Your task to perform on an android device: Go to location settings Image 0: 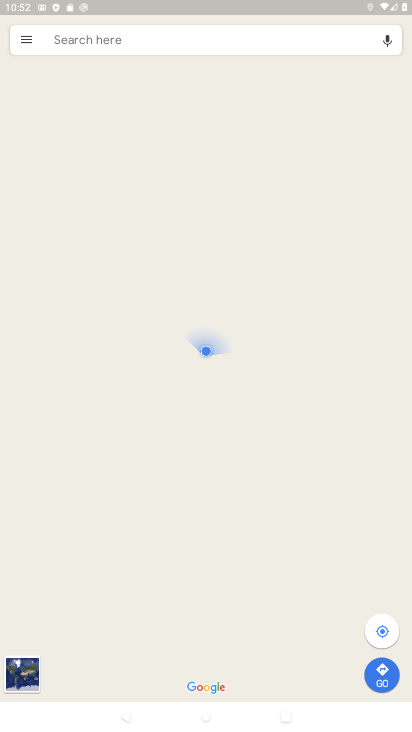
Step 0: press home button
Your task to perform on an android device: Go to location settings Image 1: 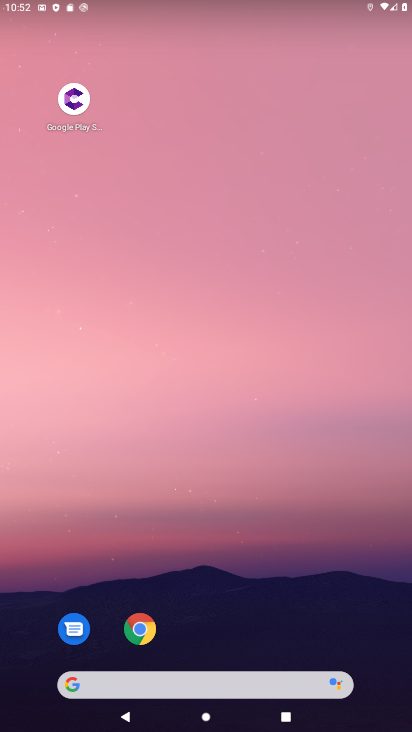
Step 1: drag from (279, 619) to (227, 99)
Your task to perform on an android device: Go to location settings Image 2: 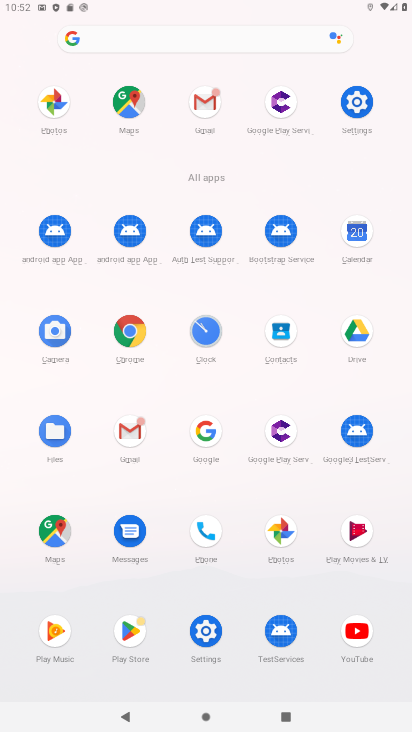
Step 2: click (337, 109)
Your task to perform on an android device: Go to location settings Image 3: 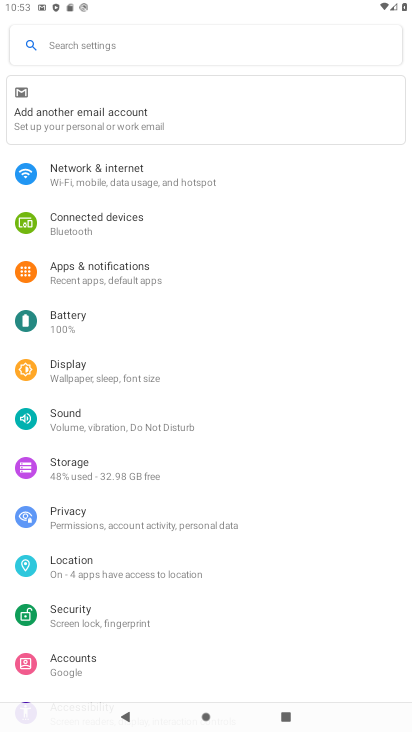
Step 3: click (121, 575)
Your task to perform on an android device: Go to location settings Image 4: 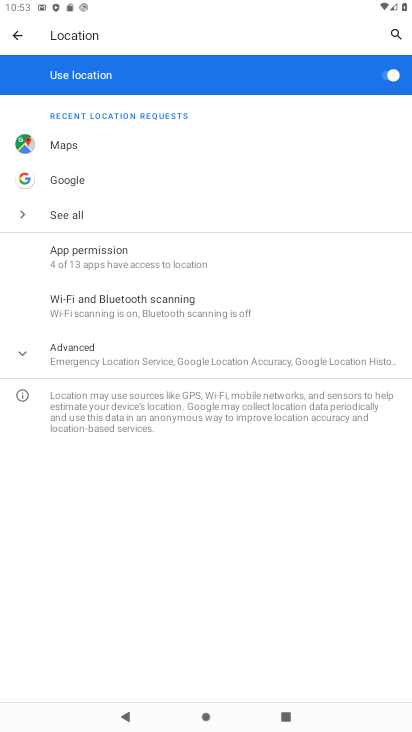
Step 4: task complete